Your task to perform on an android device: change your default location settings in chrome Image 0: 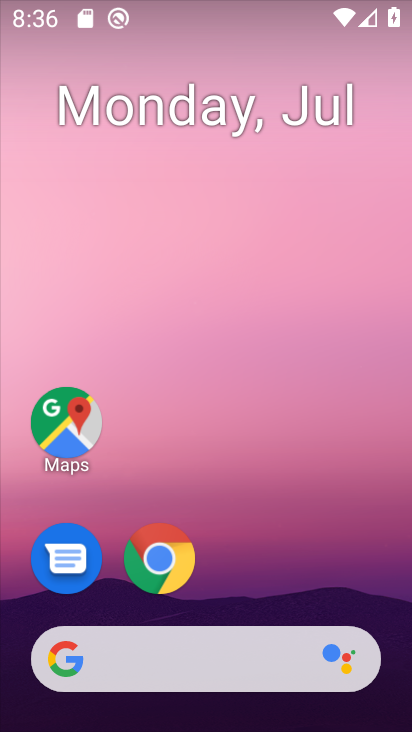
Step 0: drag from (356, 565) to (356, 81)
Your task to perform on an android device: change your default location settings in chrome Image 1: 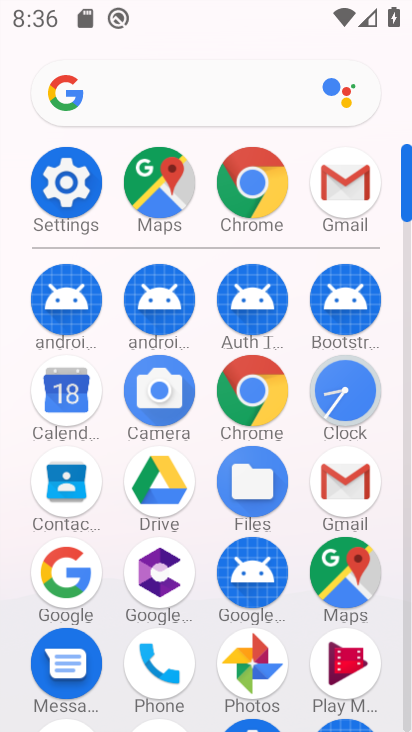
Step 1: click (270, 398)
Your task to perform on an android device: change your default location settings in chrome Image 2: 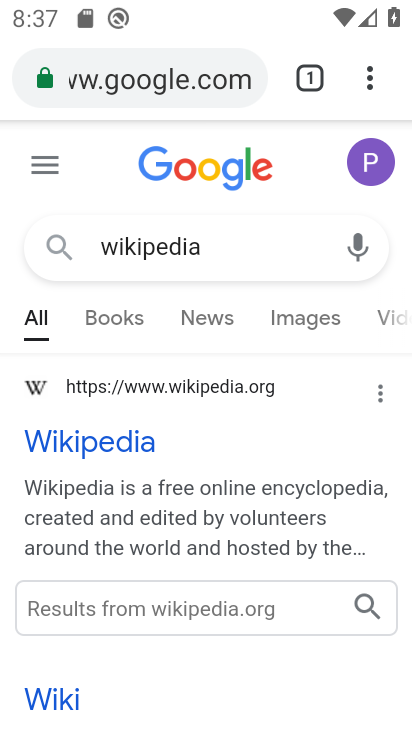
Step 2: click (371, 85)
Your task to perform on an android device: change your default location settings in chrome Image 3: 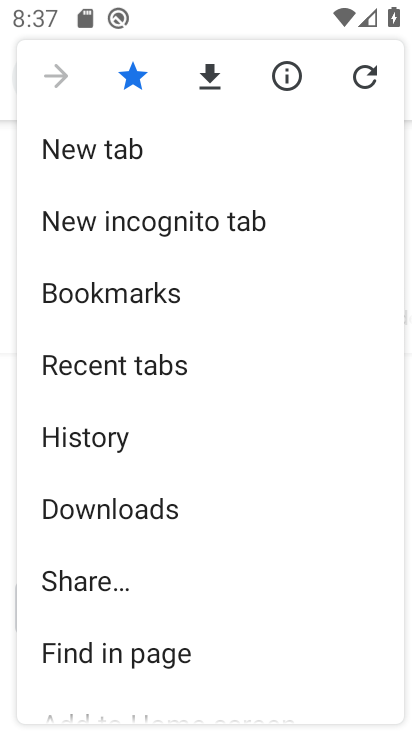
Step 3: drag from (322, 487) to (331, 408)
Your task to perform on an android device: change your default location settings in chrome Image 4: 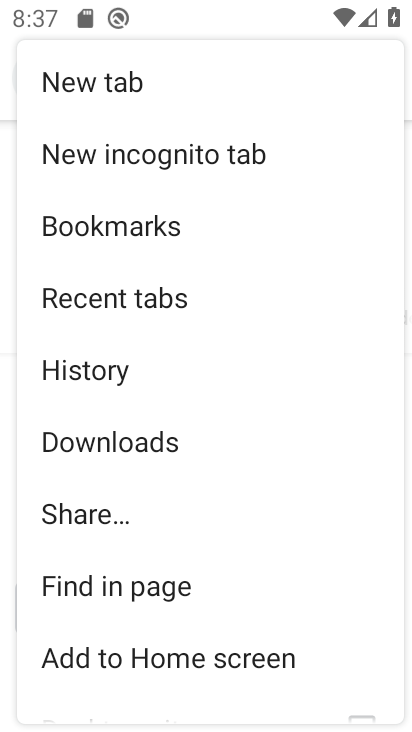
Step 4: drag from (333, 521) to (327, 434)
Your task to perform on an android device: change your default location settings in chrome Image 5: 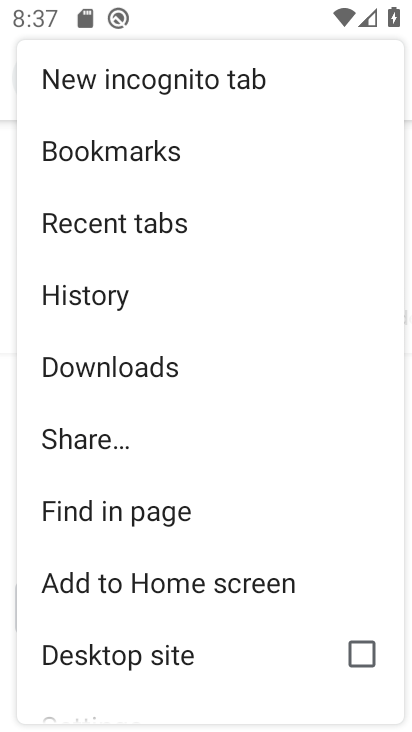
Step 5: drag from (322, 529) to (325, 436)
Your task to perform on an android device: change your default location settings in chrome Image 6: 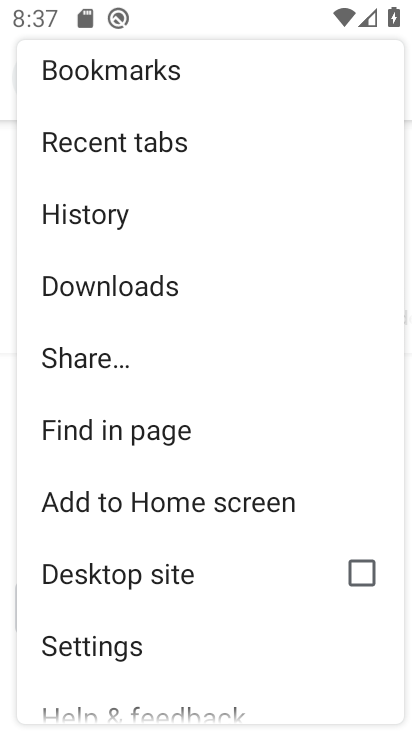
Step 6: drag from (291, 555) to (298, 387)
Your task to perform on an android device: change your default location settings in chrome Image 7: 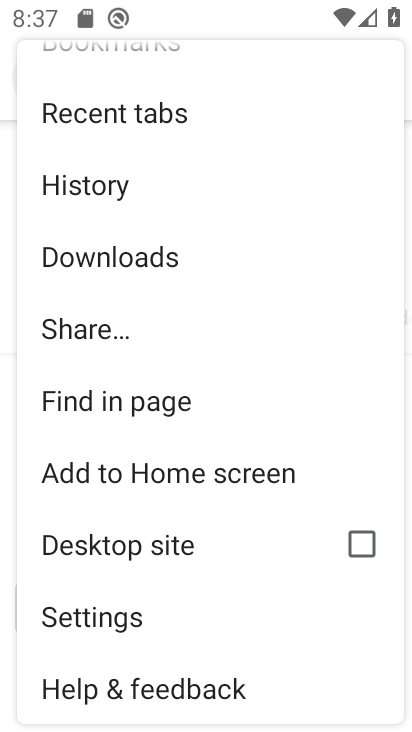
Step 7: click (240, 623)
Your task to perform on an android device: change your default location settings in chrome Image 8: 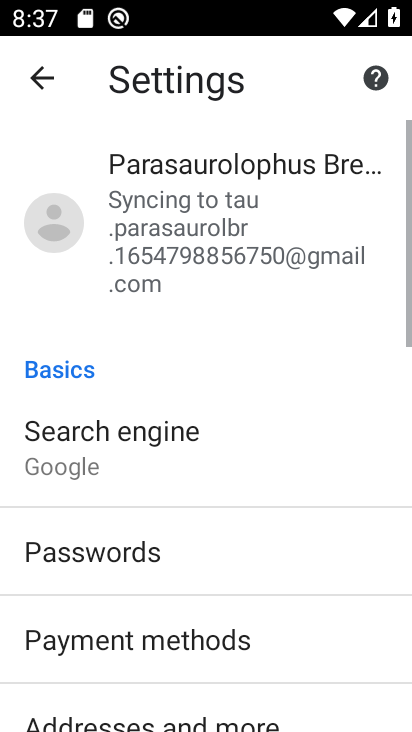
Step 8: drag from (290, 530) to (290, 461)
Your task to perform on an android device: change your default location settings in chrome Image 9: 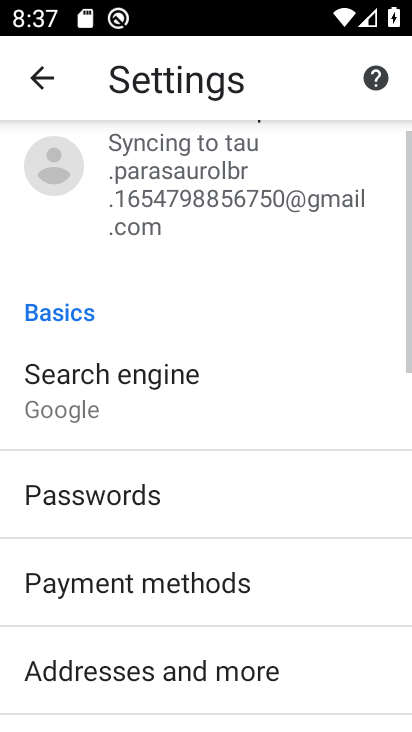
Step 9: drag from (308, 546) to (318, 476)
Your task to perform on an android device: change your default location settings in chrome Image 10: 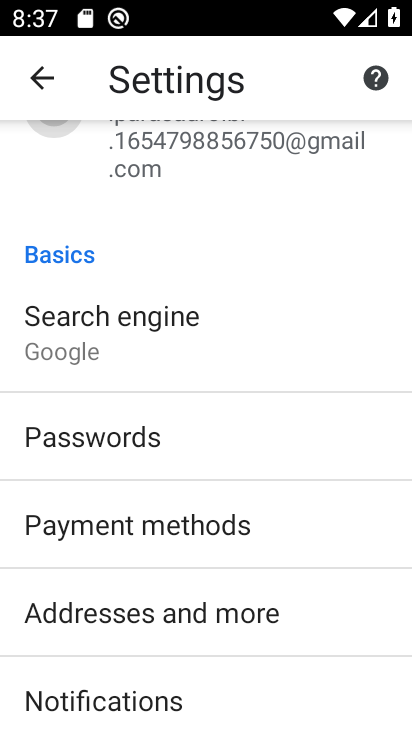
Step 10: drag from (319, 540) to (324, 455)
Your task to perform on an android device: change your default location settings in chrome Image 11: 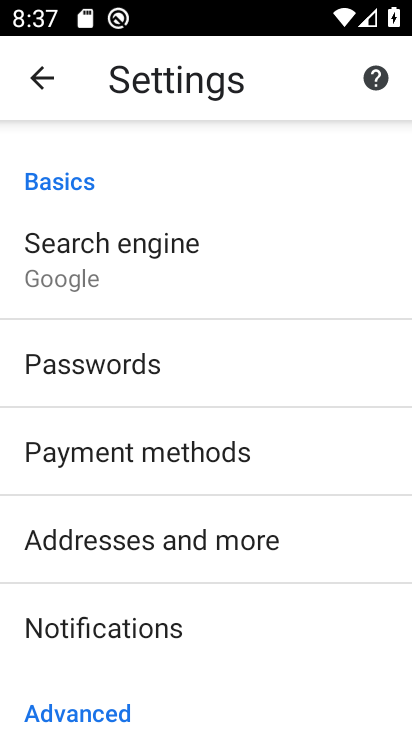
Step 11: drag from (331, 550) to (340, 435)
Your task to perform on an android device: change your default location settings in chrome Image 12: 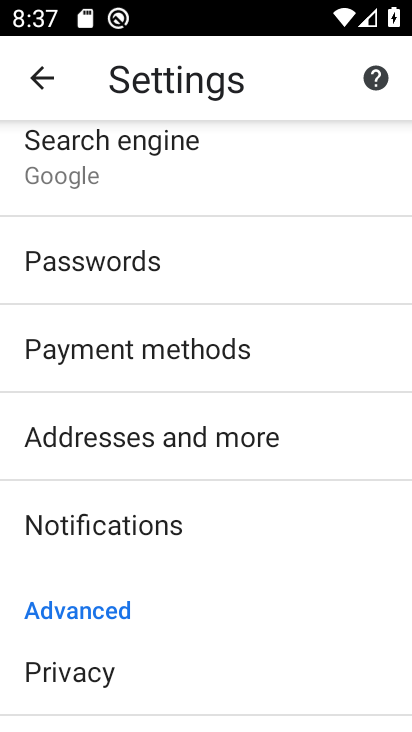
Step 12: drag from (317, 521) to (317, 428)
Your task to perform on an android device: change your default location settings in chrome Image 13: 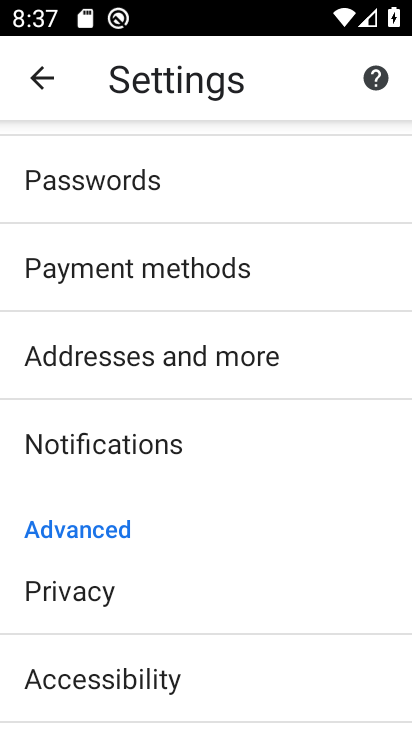
Step 13: drag from (303, 540) to (305, 392)
Your task to perform on an android device: change your default location settings in chrome Image 14: 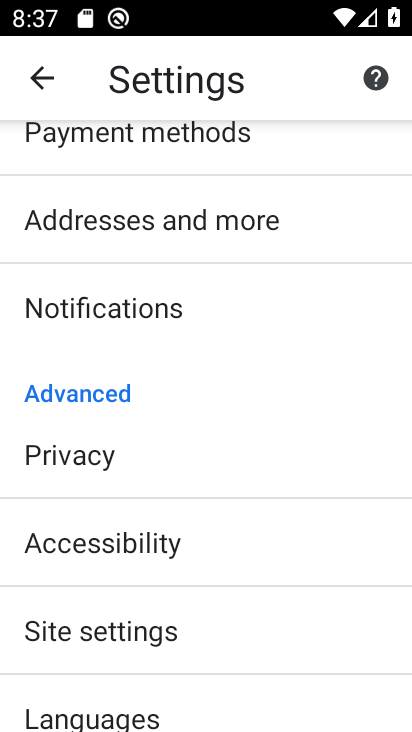
Step 14: drag from (291, 576) to (288, 437)
Your task to perform on an android device: change your default location settings in chrome Image 15: 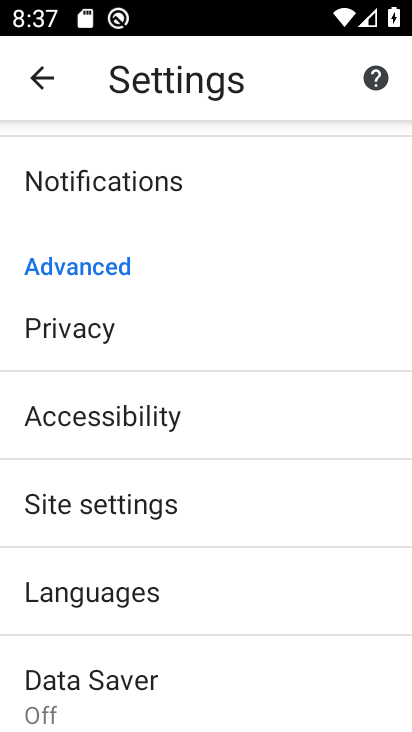
Step 15: drag from (285, 564) to (283, 459)
Your task to perform on an android device: change your default location settings in chrome Image 16: 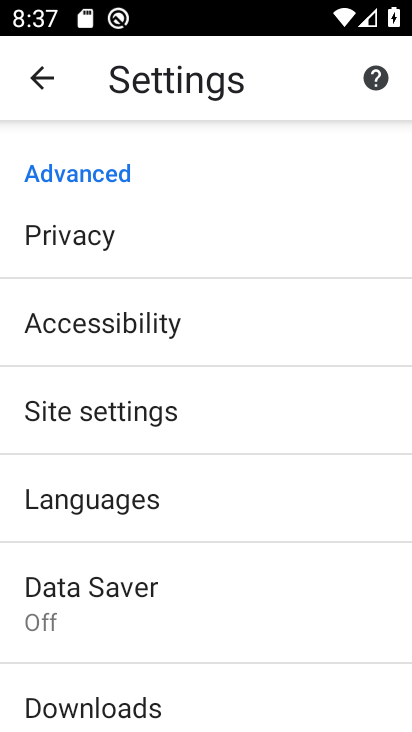
Step 16: click (272, 426)
Your task to perform on an android device: change your default location settings in chrome Image 17: 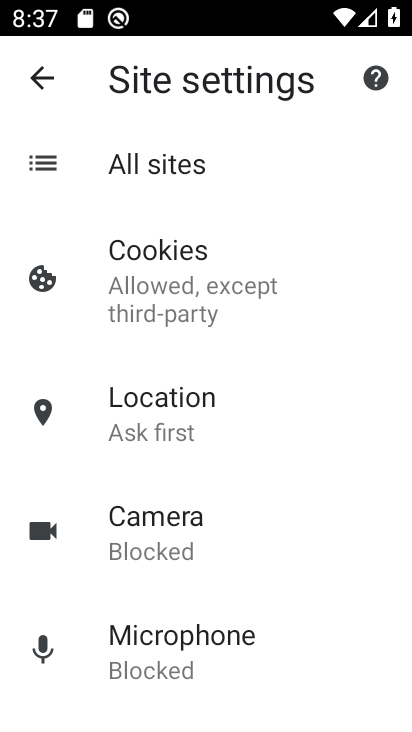
Step 17: drag from (285, 501) to (285, 445)
Your task to perform on an android device: change your default location settings in chrome Image 18: 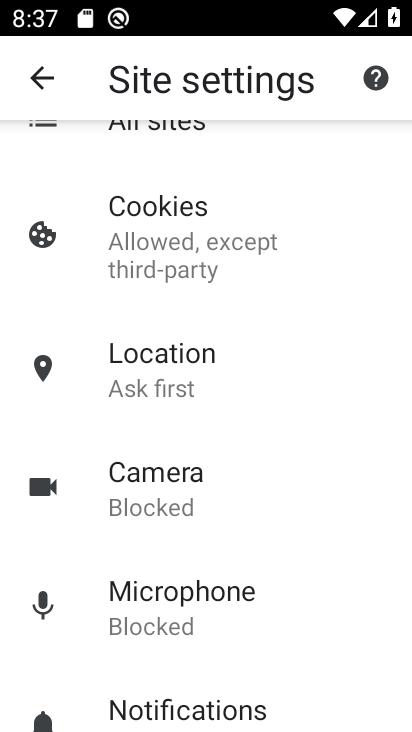
Step 18: drag from (289, 542) to (288, 443)
Your task to perform on an android device: change your default location settings in chrome Image 19: 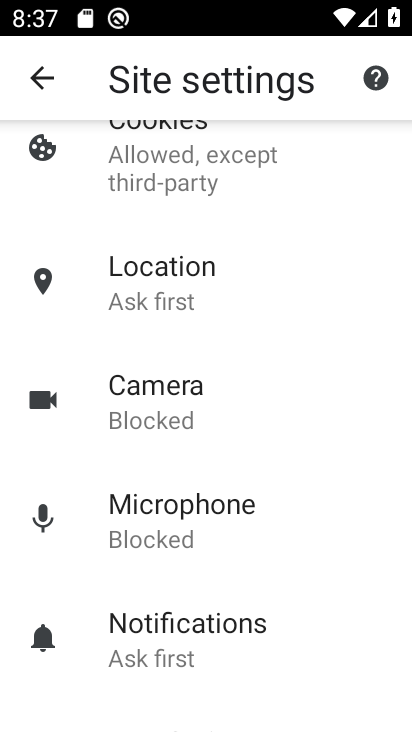
Step 19: click (196, 292)
Your task to perform on an android device: change your default location settings in chrome Image 20: 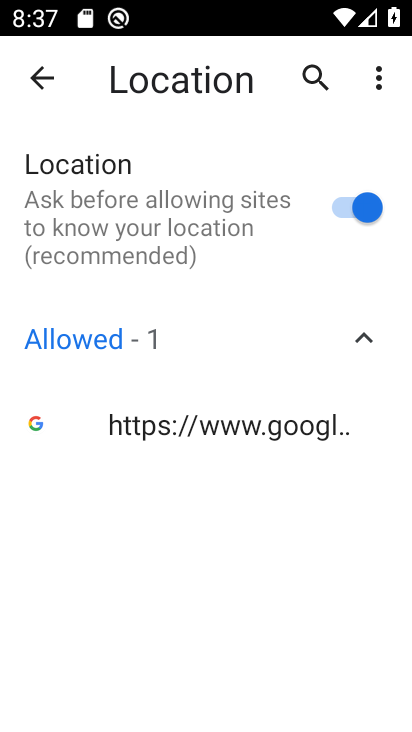
Step 20: click (350, 207)
Your task to perform on an android device: change your default location settings in chrome Image 21: 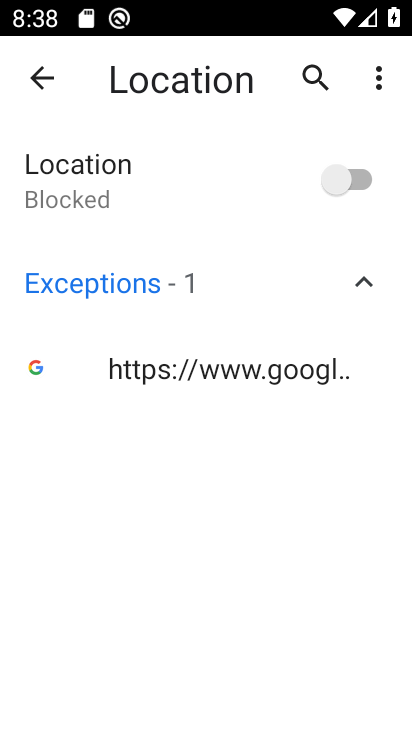
Step 21: task complete